Your task to perform on an android device: turn on bluetooth scan Image 0: 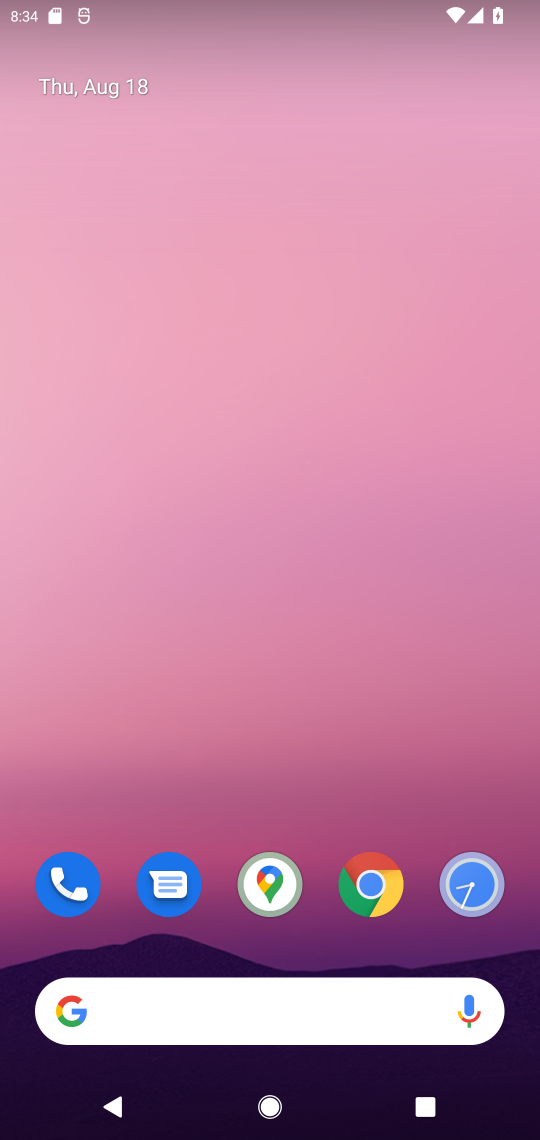
Step 0: drag from (291, 17) to (422, 33)
Your task to perform on an android device: turn on bluetooth scan Image 1: 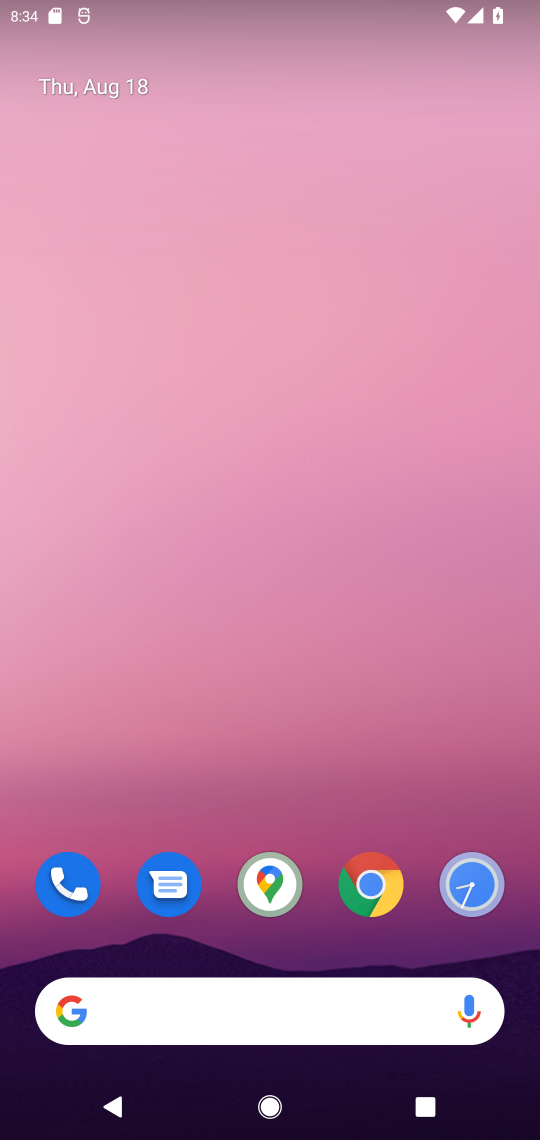
Step 1: drag from (254, 949) to (378, 54)
Your task to perform on an android device: turn on bluetooth scan Image 2: 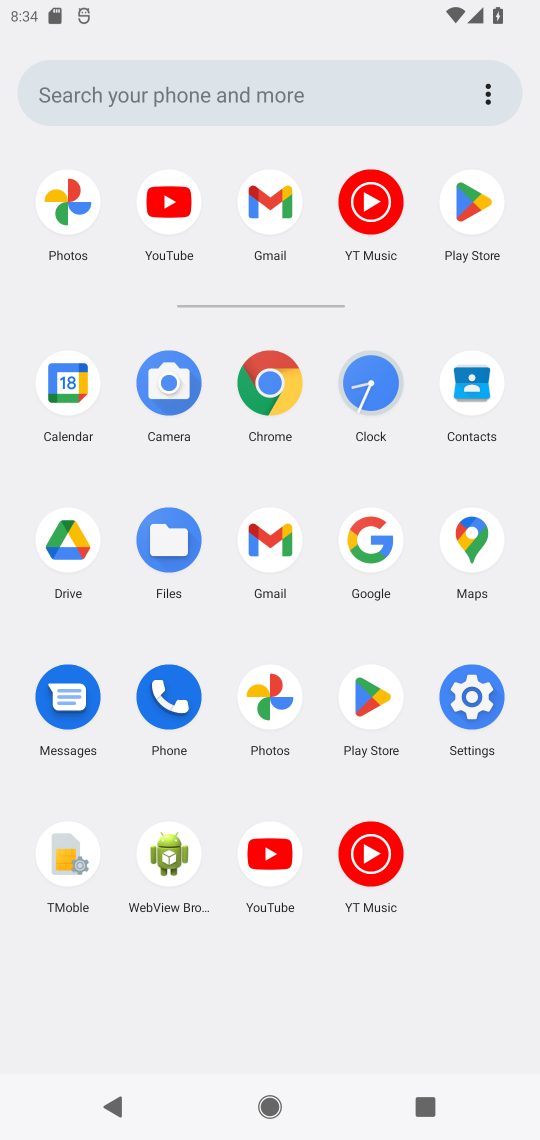
Step 2: click (469, 732)
Your task to perform on an android device: turn on bluetooth scan Image 3: 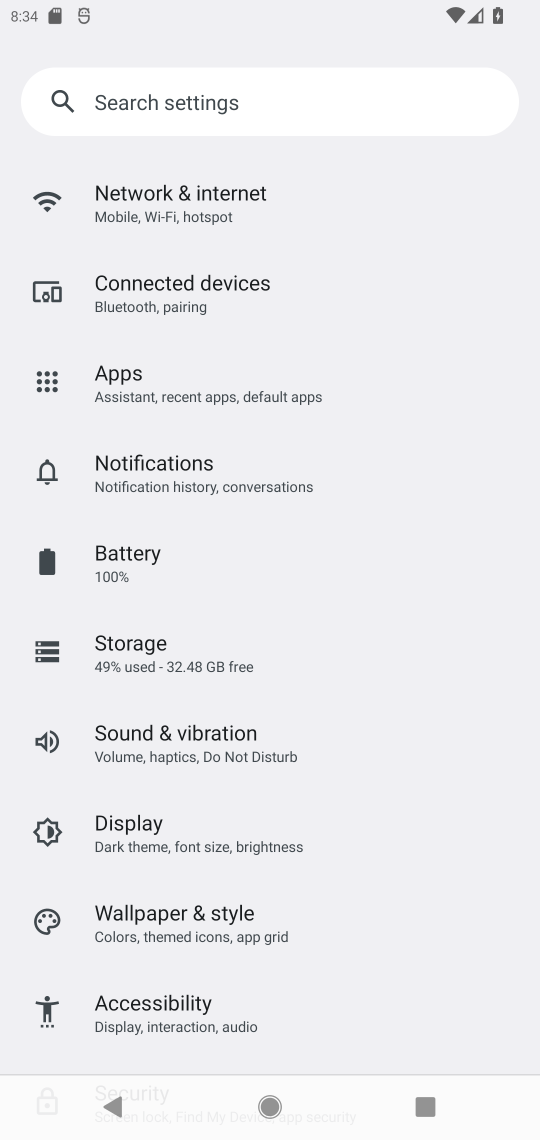
Step 3: drag from (190, 538) to (224, 203)
Your task to perform on an android device: turn on bluetooth scan Image 4: 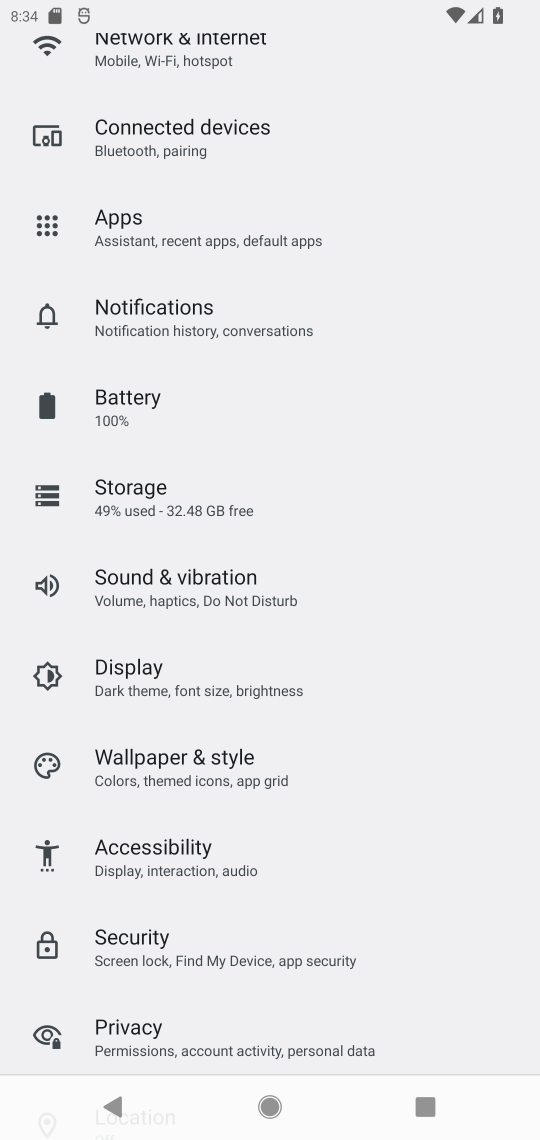
Step 4: drag from (305, 426) to (253, 1007)
Your task to perform on an android device: turn on bluetooth scan Image 5: 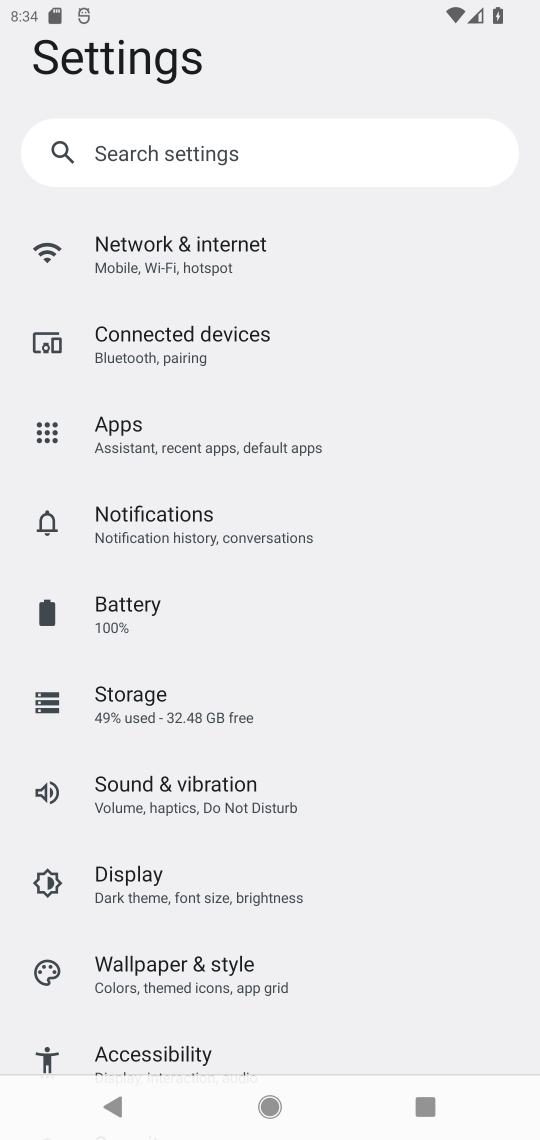
Step 5: drag from (198, 994) to (307, 427)
Your task to perform on an android device: turn on bluetooth scan Image 6: 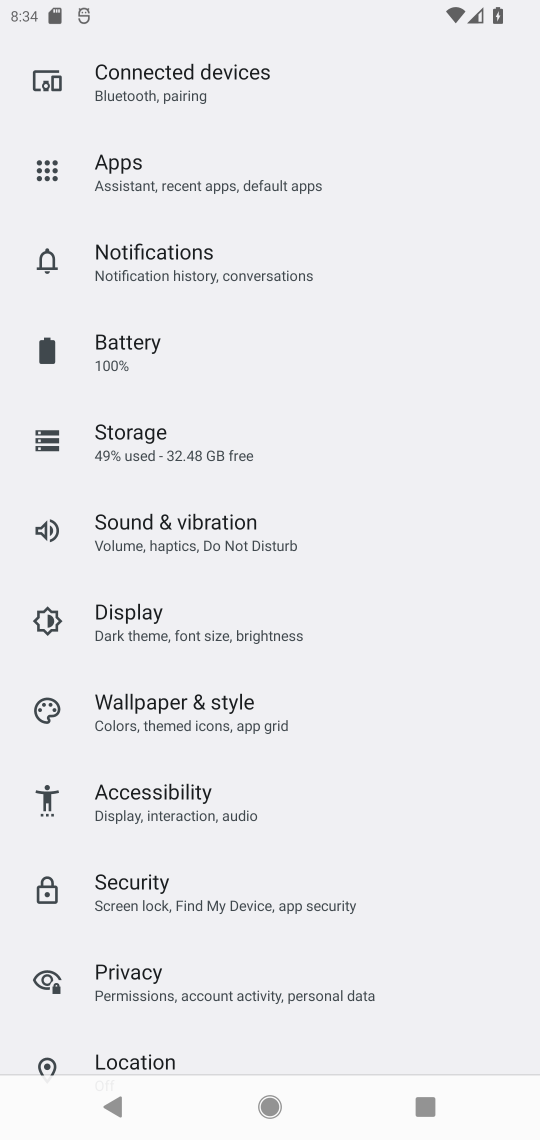
Step 6: click (95, 1068)
Your task to perform on an android device: turn on bluetooth scan Image 7: 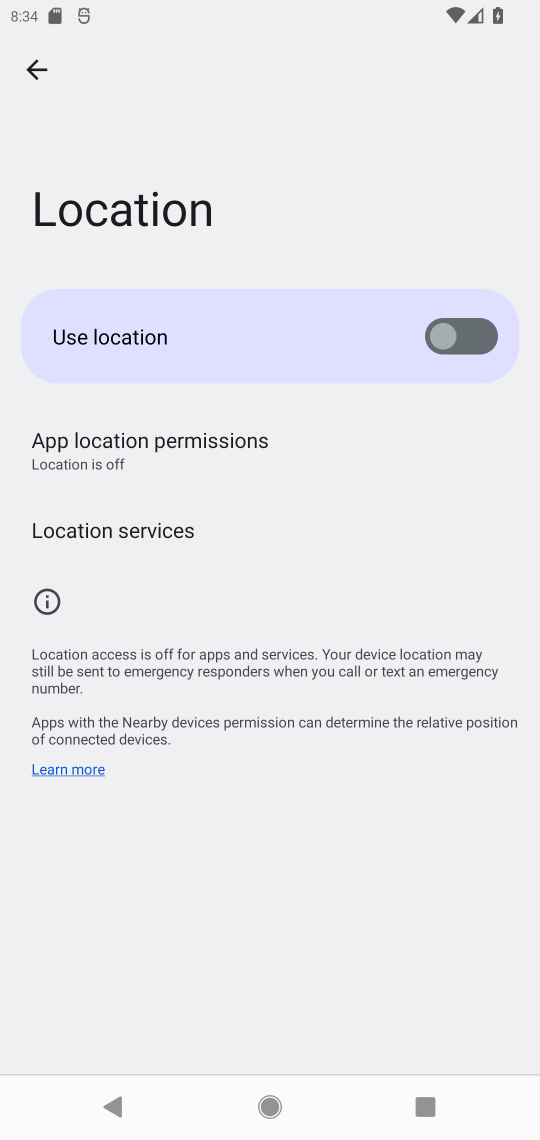
Step 7: click (495, 337)
Your task to perform on an android device: turn on bluetooth scan Image 8: 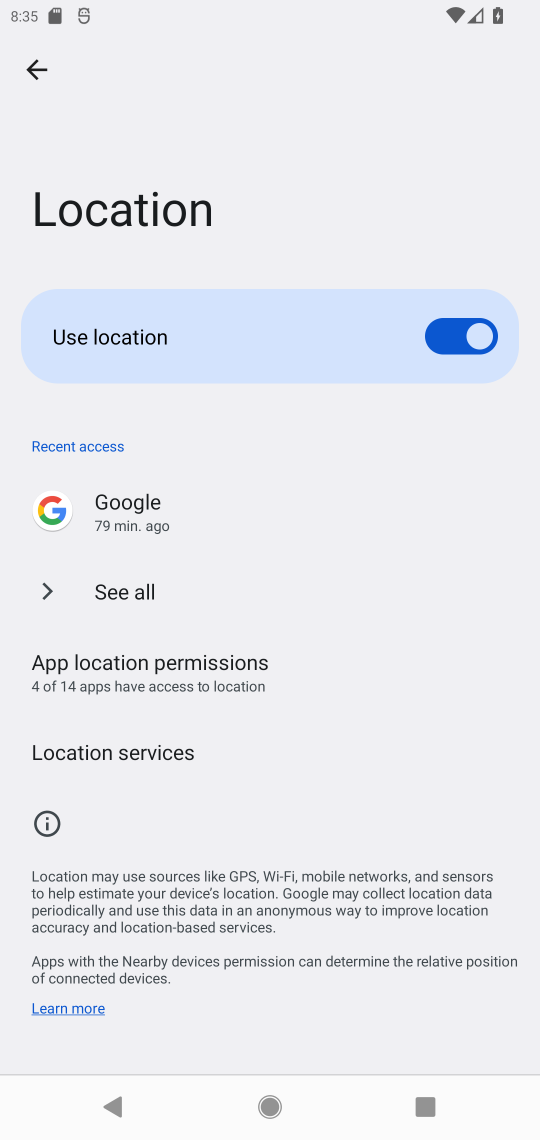
Step 8: click (210, 757)
Your task to perform on an android device: turn on bluetooth scan Image 9: 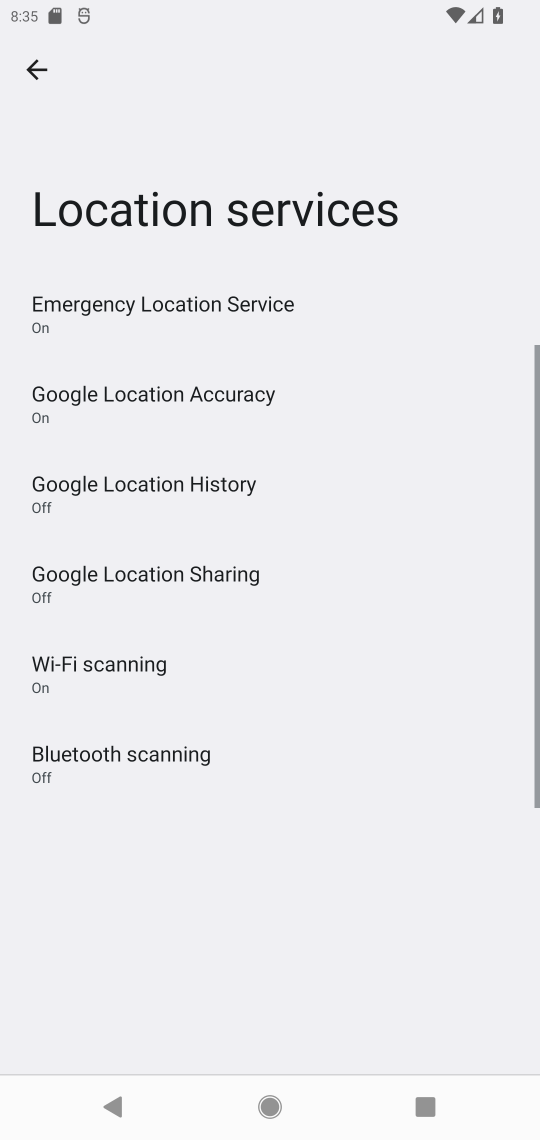
Step 9: click (210, 757)
Your task to perform on an android device: turn on bluetooth scan Image 10: 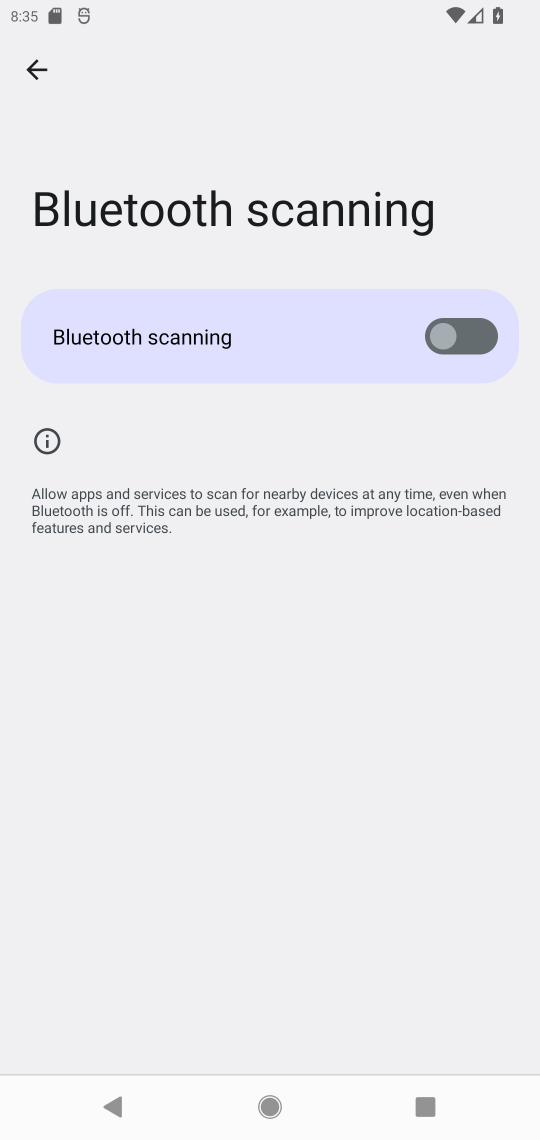
Step 10: click (480, 334)
Your task to perform on an android device: turn on bluetooth scan Image 11: 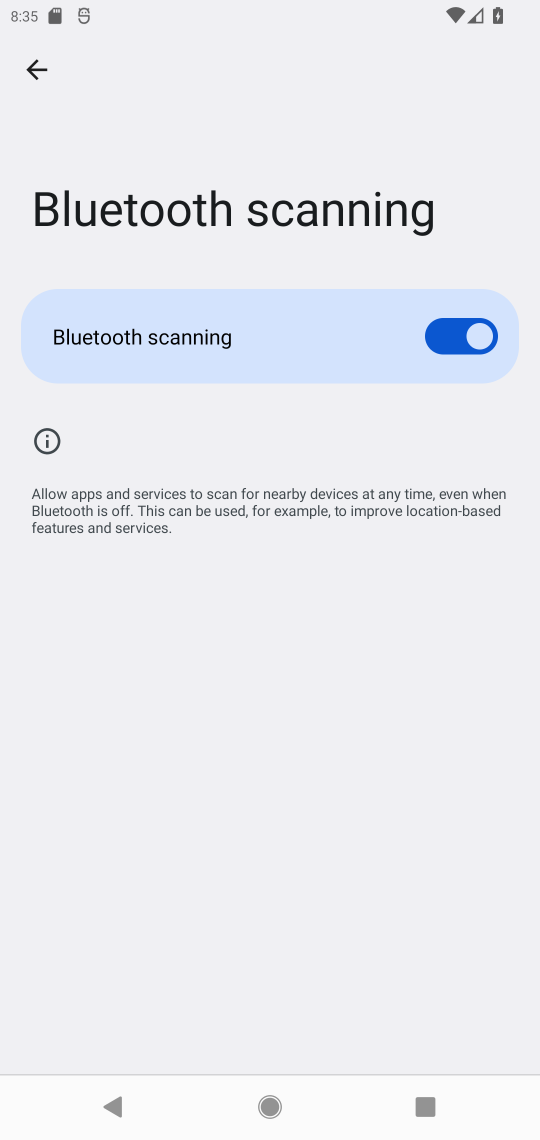
Step 11: task complete